Your task to perform on an android device: Toggle the flashlight Image 0: 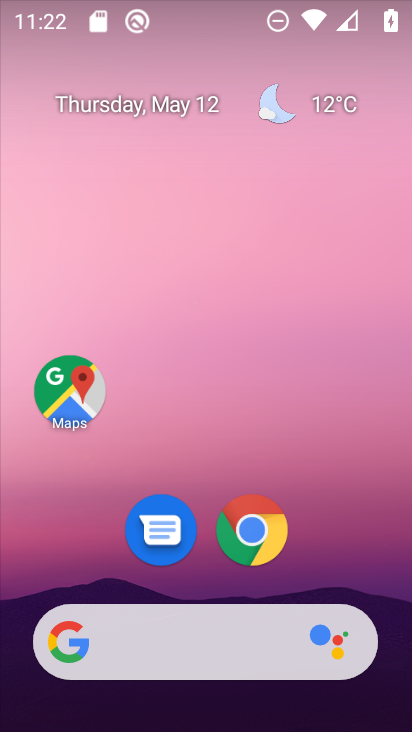
Step 0: drag from (234, 0) to (267, 350)
Your task to perform on an android device: Toggle the flashlight Image 1: 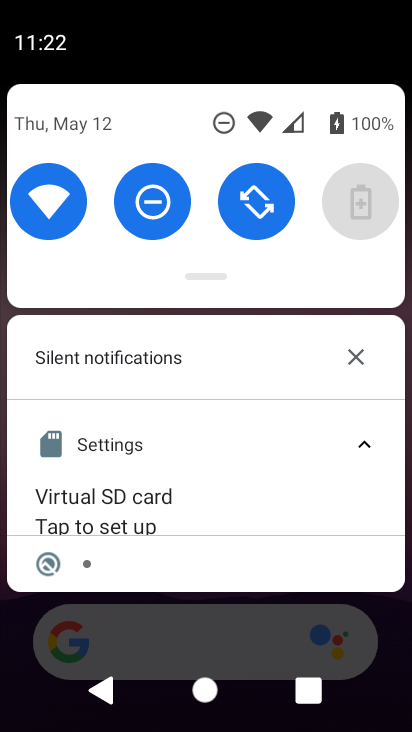
Step 1: task complete